Your task to perform on an android device: set default search engine in the chrome app Image 0: 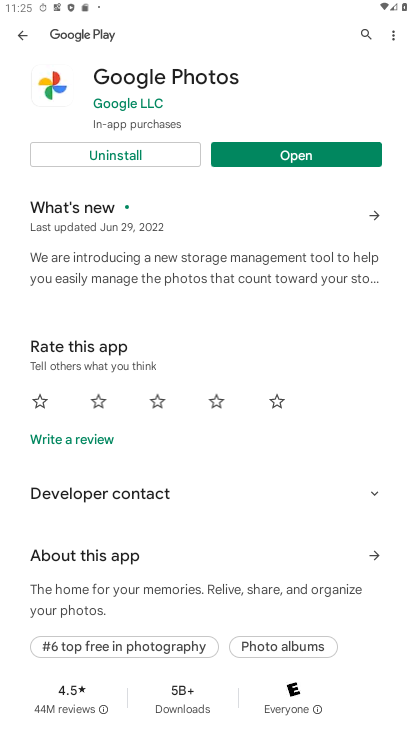
Step 0: press home button
Your task to perform on an android device: set default search engine in the chrome app Image 1: 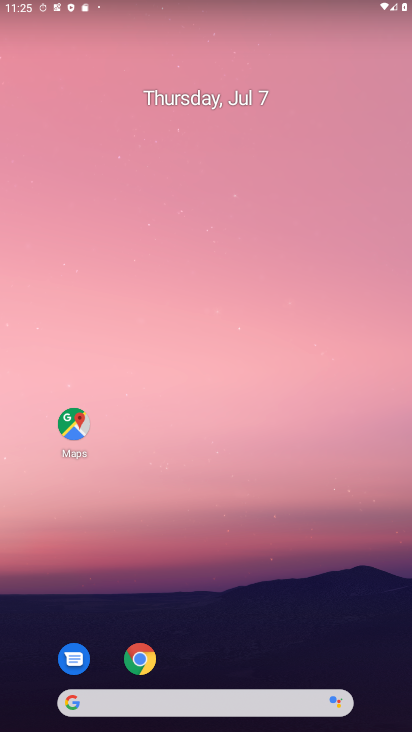
Step 1: click (135, 656)
Your task to perform on an android device: set default search engine in the chrome app Image 2: 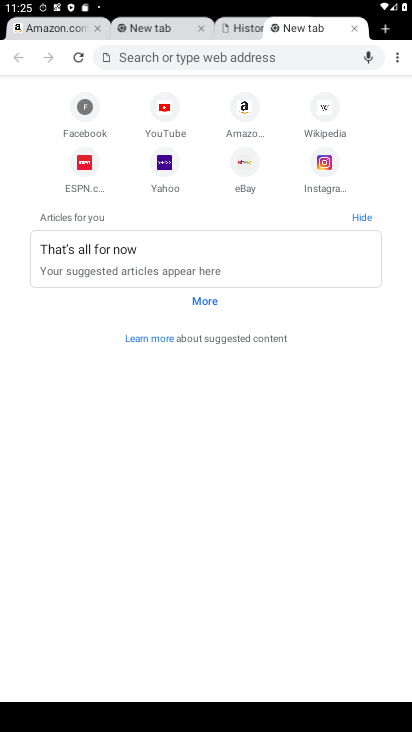
Step 2: click (356, 26)
Your task to perform on an android device: set default search engine in the chrome app Image 3: 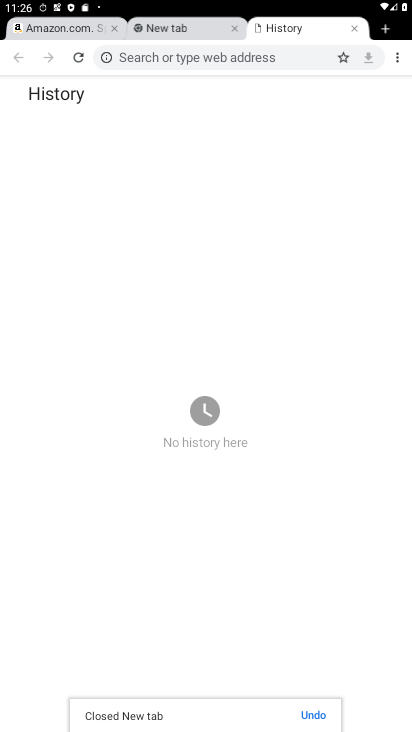
Step 3: click (353, 21)
Your task to perform on an android device: set default search engine in the chrome app Image 4: 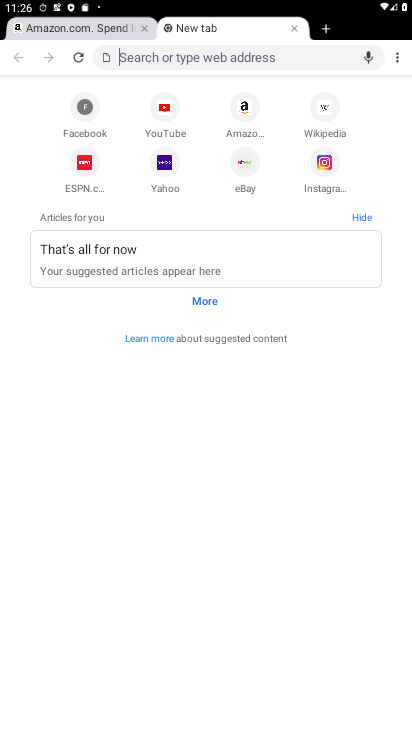
Step 4: click (296, 28)
Your task to perform on an android device: set default search engine in the chrome app Image 5: 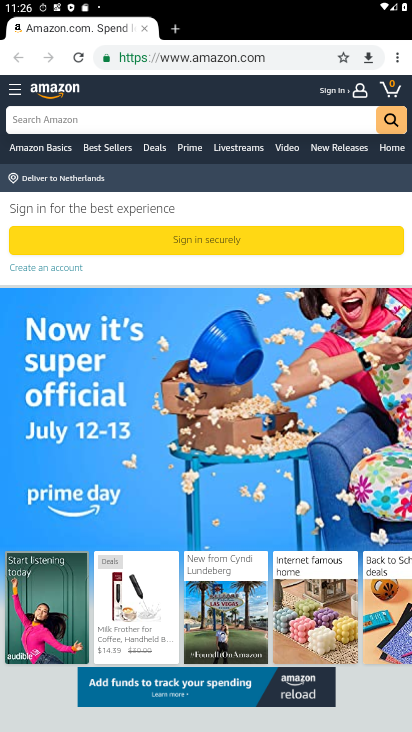
Step 5: click (394, 52)
Your task to perform on an android device: set default search engine in the chrome app Image 6: 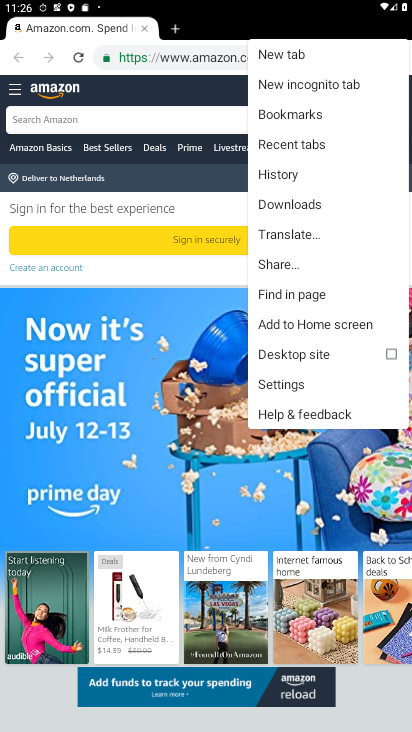
Step 6: click (305, 381)
Your task to perform on an android device: set default search engine in the chrome app Image 7: 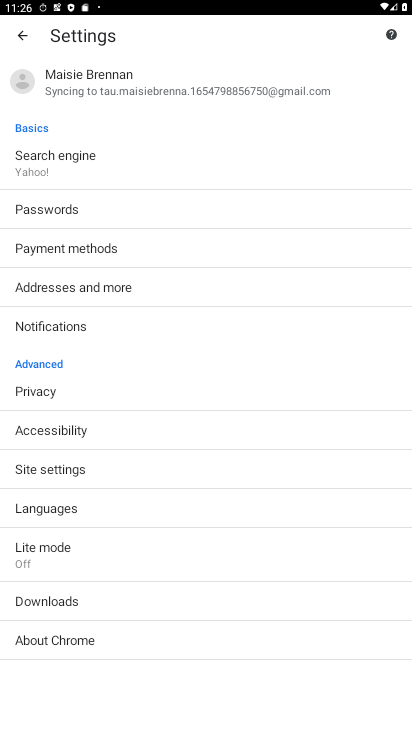
Step 7: click (75, 164)
Your task to perform on an android device: set default search engine in the chrome app Image 8: 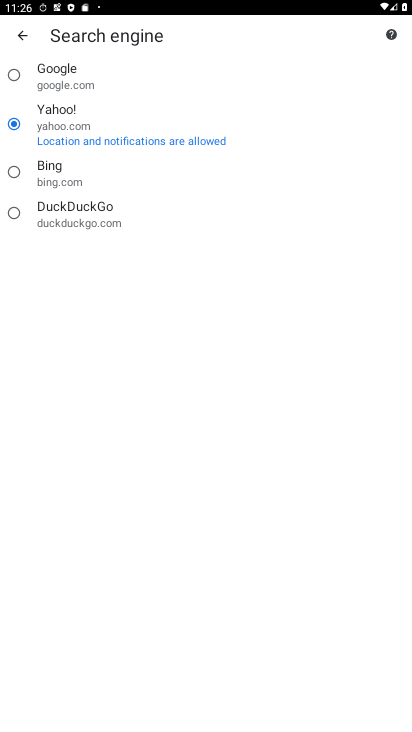
Step 8: click (21, 76)
Your task to perform on an android device: set default search engine in the chrome app Image 9: 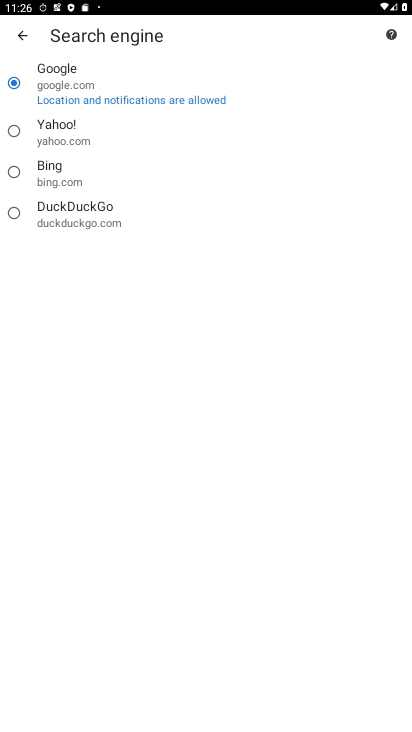
Step 9: task complete